Your task to perform on an android device: find which apps use the phone's location Image 0: 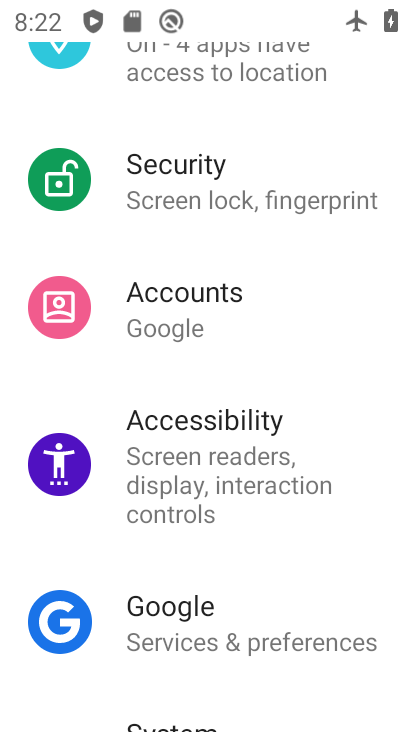
Step 0: drag from (260, 221) to (202, 574)
Your task to perform on an android device: find which apps use the phone's location Image 1: 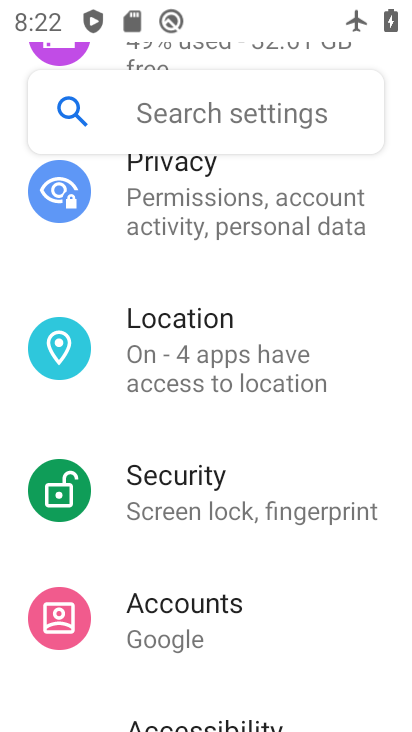
Step 1: click (202, 574)
Your task to perform on an android device: find which apps use the phone's location Image 2: 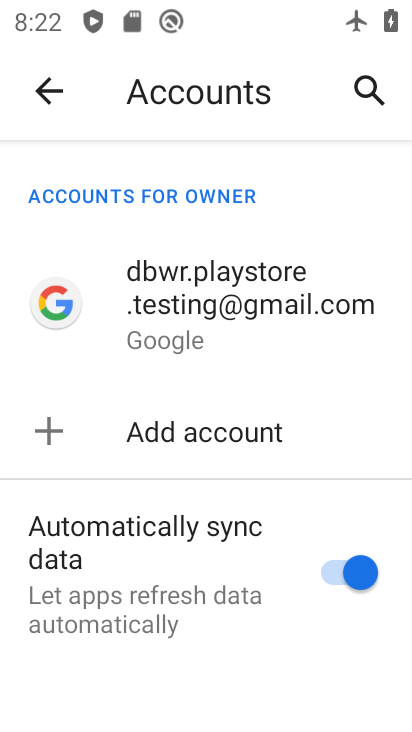
Step 2: click (46, 100)
Your task to perform on an android device: find which apps use the phone's location Image 3: 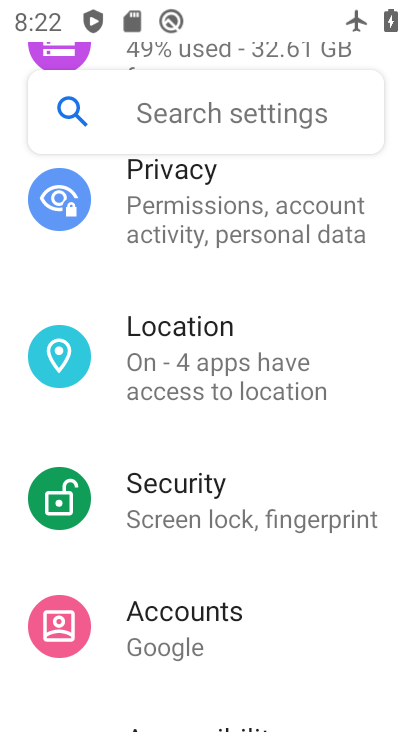
Step 3: click (105, 358)
Your task to perform on an android device: find which apps use the phone's location Image 4: 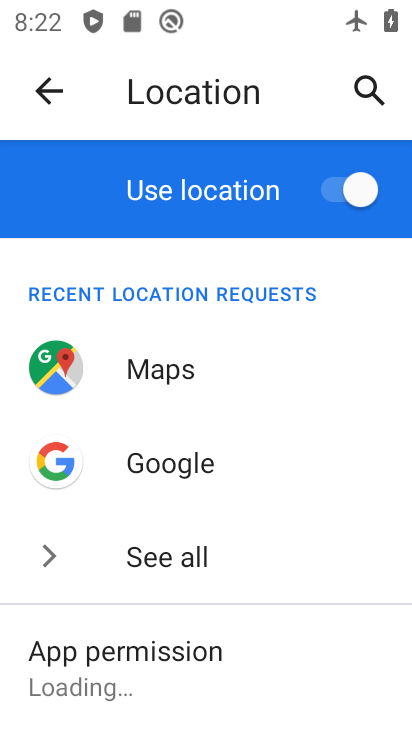
Step 4: drag from (199, 586) to (166, 243)
Your task to perform on an android device: find which apps use the phone's location Image 5: 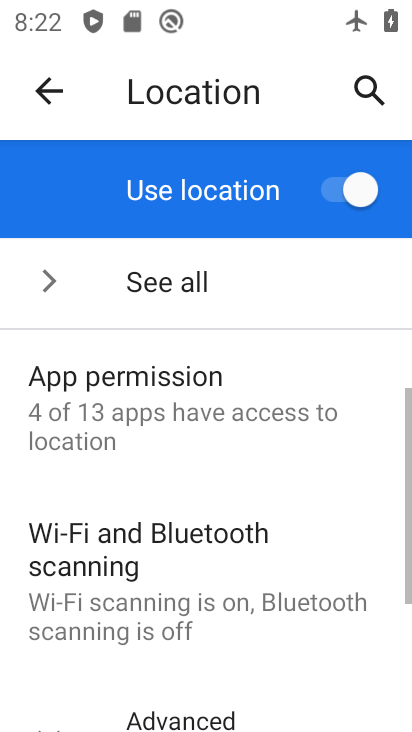
Step 5: click (137, 402)
Your task to perform on an android device: find which apps use the phone's location Image 6: 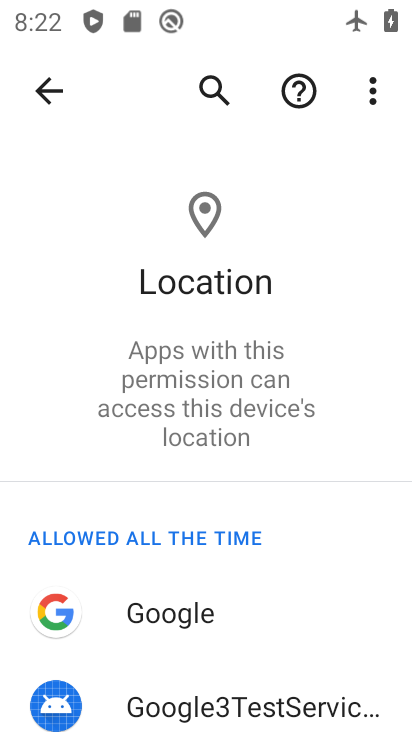
Step 6: task complete